Your task to perform on an android device: Go to internet settings Image 0: 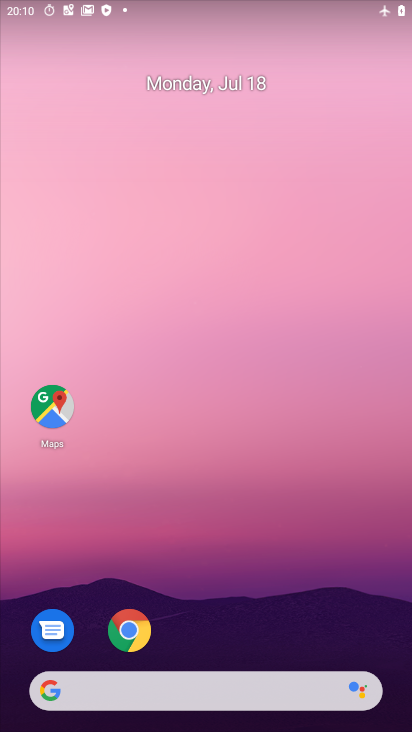
Step 0: drag from (236, 383) to (209, 85)
Your task to perform on an android device: Go to internet settings Image 1: 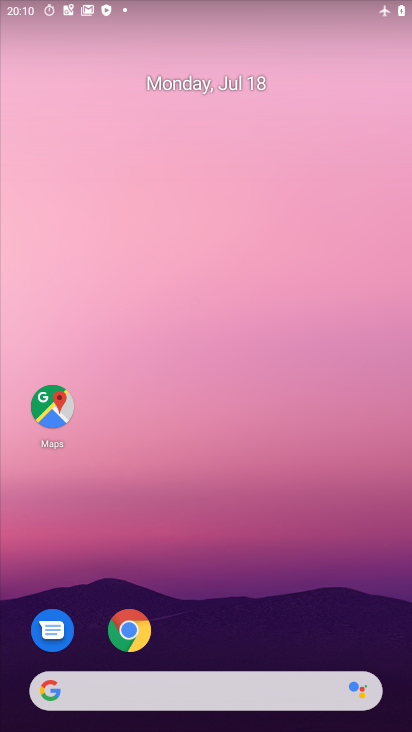
Step 1: drag from (329, 615) to (241, 74)
Your task to perform on an android device: Go to internet settings Image 2: 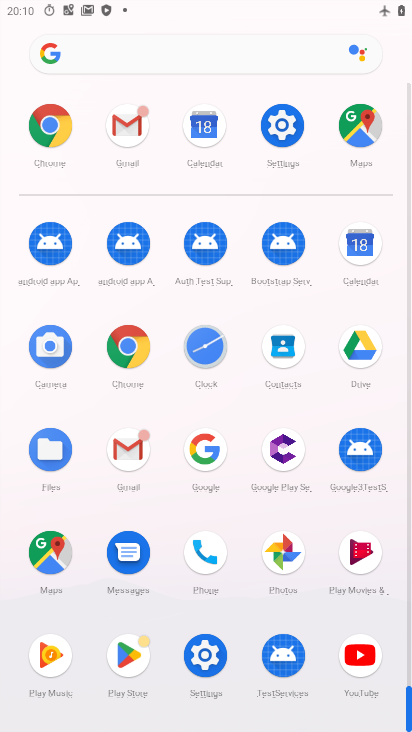
Step 2: click (273, 124)
Your task to perform on an android device: Go to internet settings Image 3: 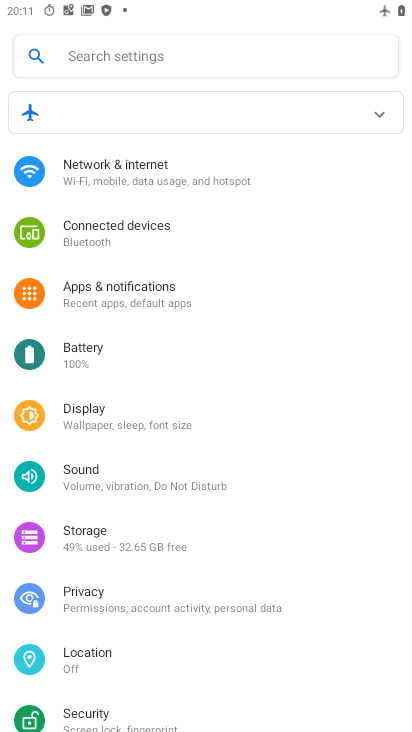
Step 3: click (150, 185)
Your task to perform on an android device: Go to internet settings Image 4: 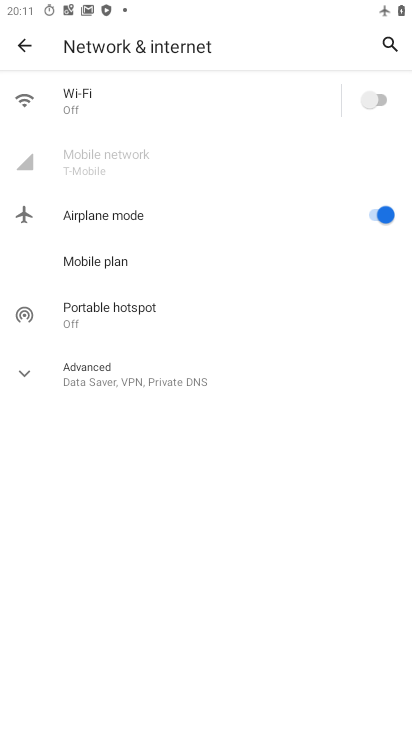
Step 4: task complete